Your task to perform on an android device: allow cookies in the chrome app Image 0: 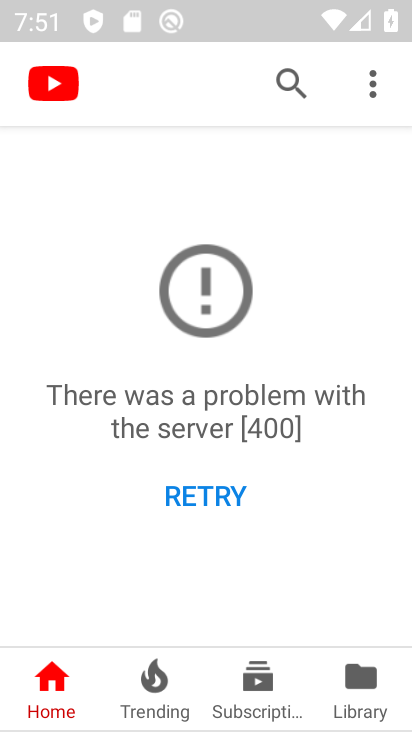
Step 0: press home button
Your task to perform on an android device: allow cookies in the chrome app Image 1: 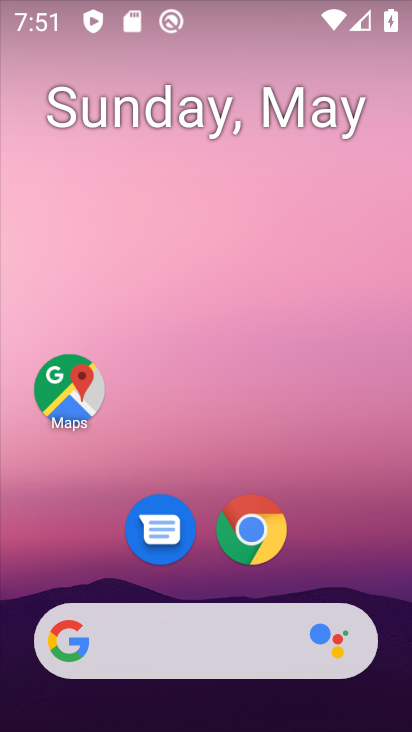
Step 1: click (266, 514)
Your task to perform on an android device: allow cookies in the chrome app Image 2: 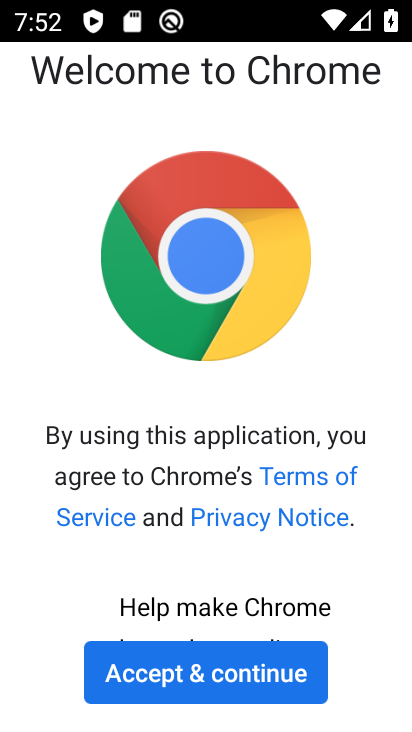
Step 2: click (208, 691)
Your task to perform on an android device: allow cookies in the chrome app Image 3: 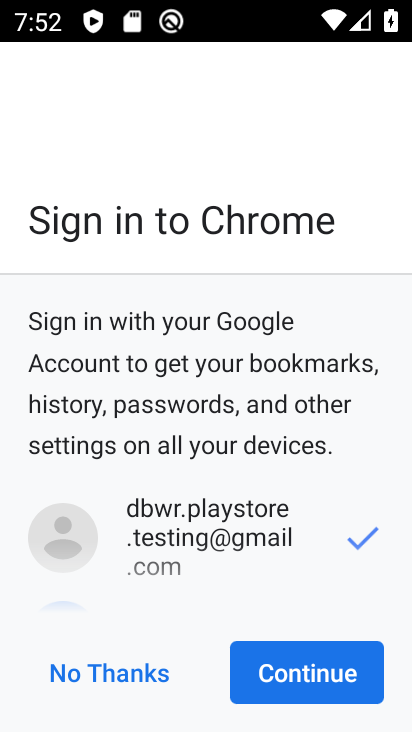
Step 3: click (289, 688)
Your task to perform on an android device: allow cookies in the chrome app Image 4: 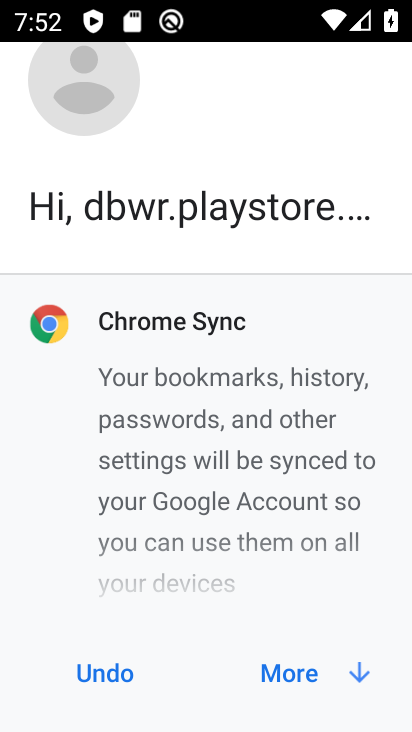
Step 4: click (289, 688)
Your task to perform on an android device: allow cookies in the chrome app Image 5: 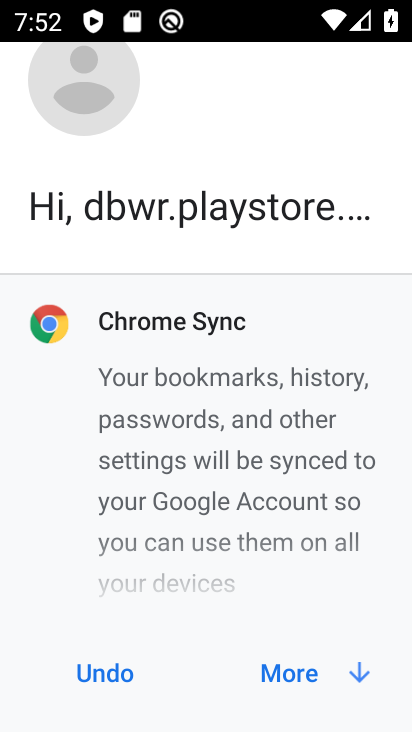
Step 5: click (289, 688)
Your task to perform on an android device: allow cookies in the chrome app Image 6: 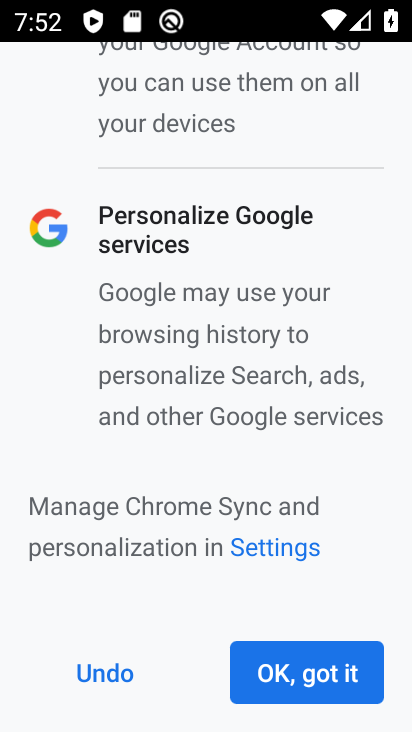
Step 6: click (289, 688)
Your task to perform on an android device: allow cookies in the chrome app Image 7: 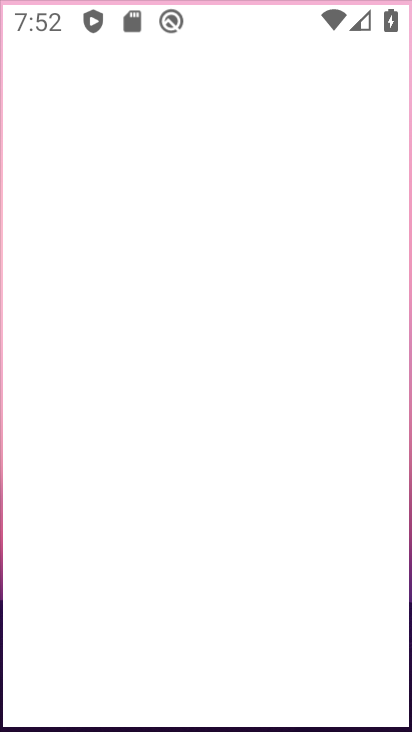
Step 7: click (289, 688)
Your task to perform on an android device: allow cookies in the chrome app Image 8: 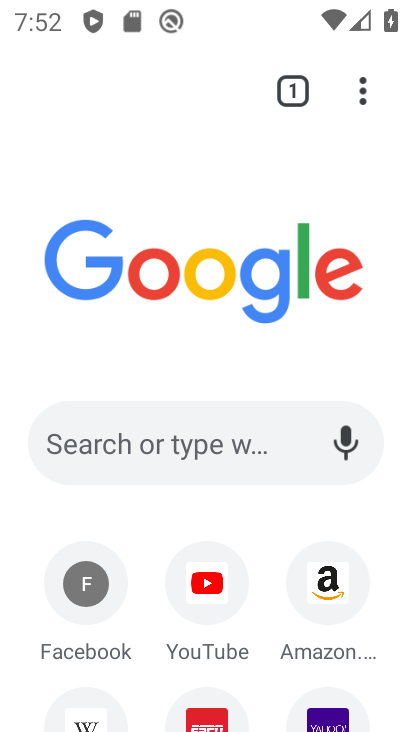
Step 8: task complete